Your task to perform on an android device: toggle priority inbox in the gmail app Image 0: 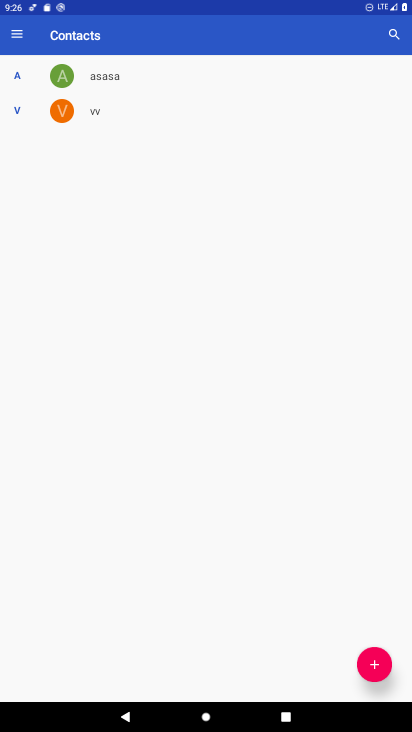
Step 0: press home button
Your task to perform on an android device: toggle priority inbox in the gmail app Image 1: 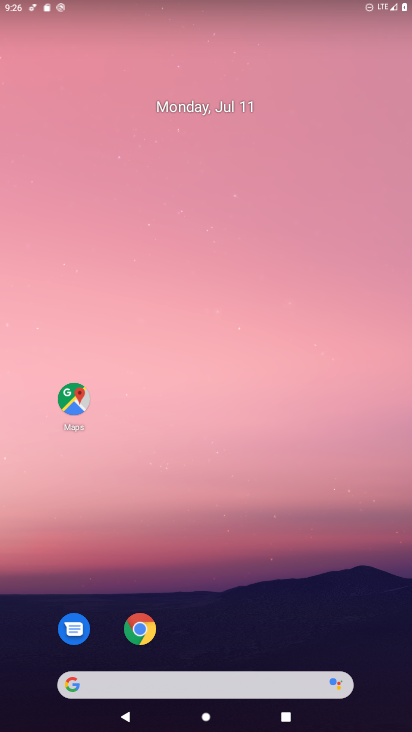
Step 1: drag from (208, 650) to (170, 109)
Your task to perform on an android device: toggle priority inbox in the gmail app Image 2: 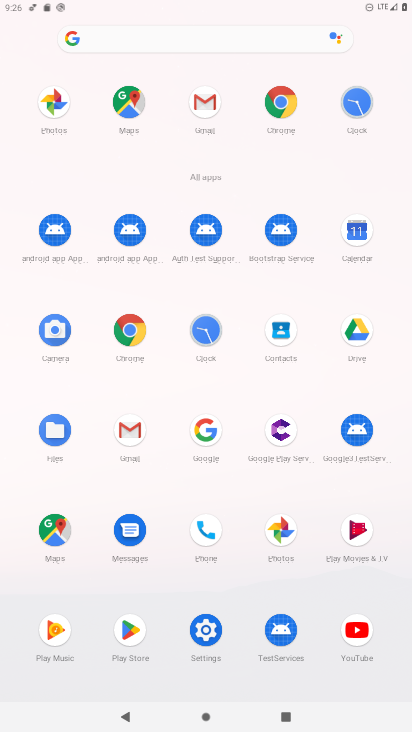
Step 2: click (203, 99)
Your task to perform on an android device: toggle priority inbox in the gmail app Image 3: 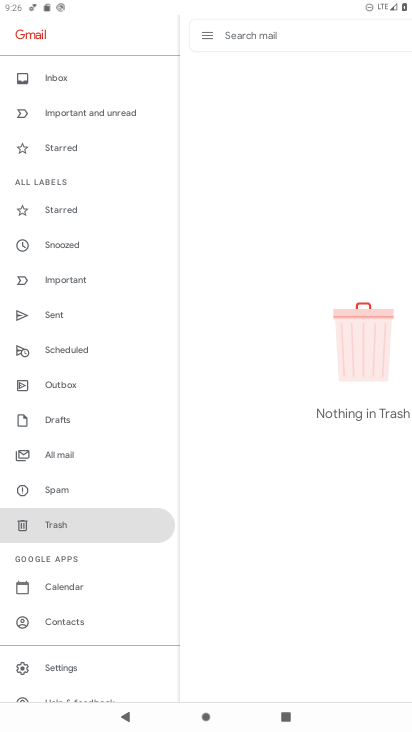
Step 3: click (63, 665)
Your task to perform on an android device: toggle priority inbox in the gmail app Image 4: 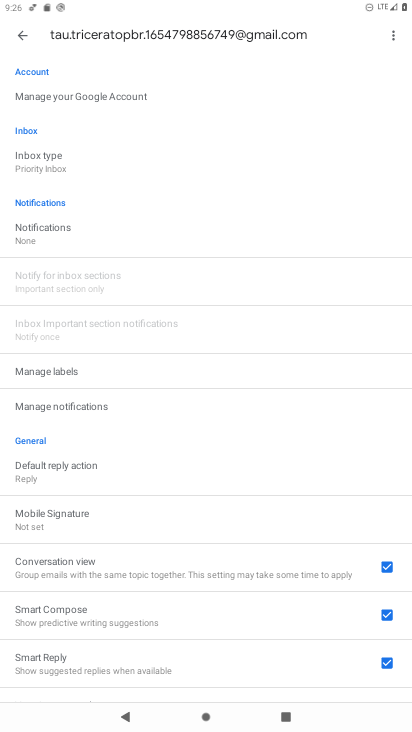
Step 4: click (93, 160)
Your task to perform on an android device: toggle priority inbox in the gmail app Image 5: 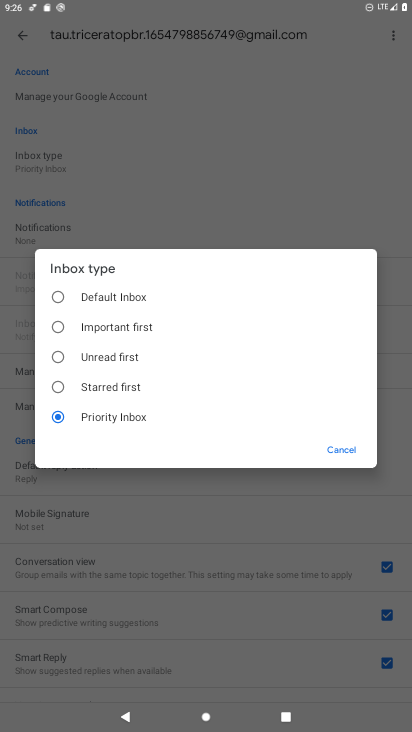
Step 5: click (157, 332)
Your task to perform on an android device: toggle priority inbox in the gmail app Image 6: 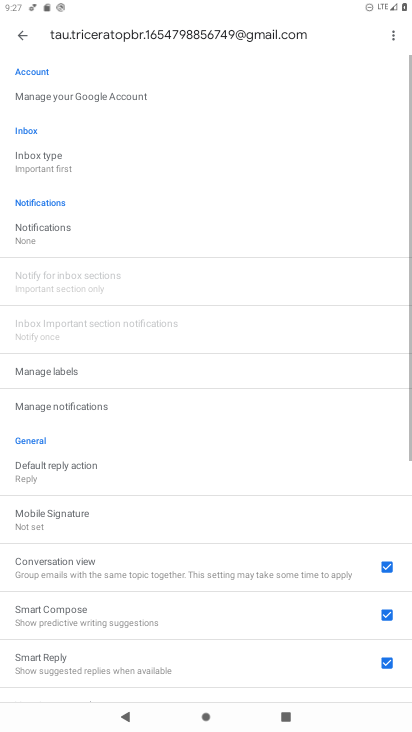
Step 6: task complete